Your task to perform on an android device: Add "apple airpods" to the cart on walmart.com, then select checkout. Image 0: 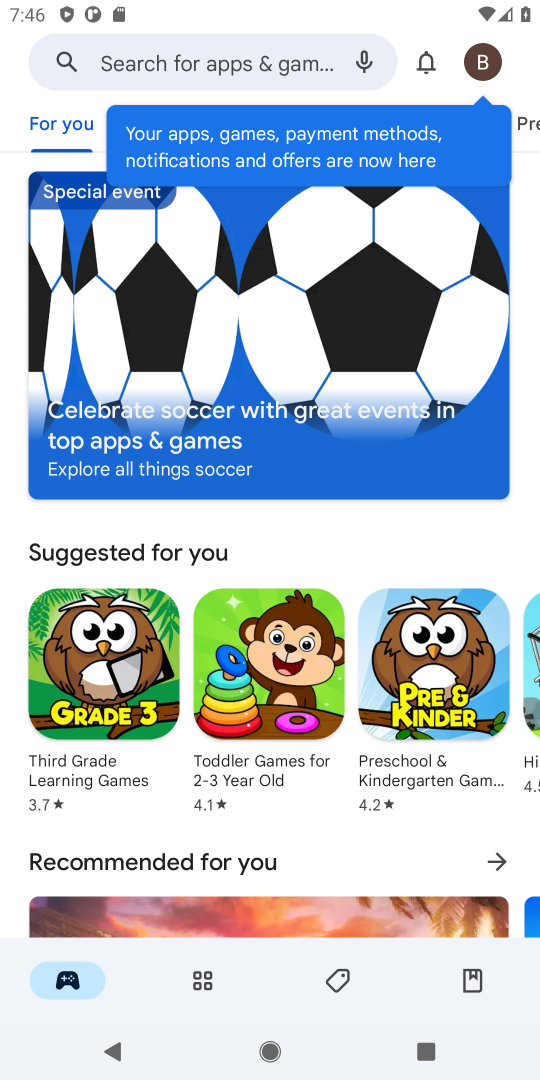
Step 0: press home button
Your task to perform on an android device: Add "apple airpods" to the cart on walmart.com, then select checkout. Image 1: 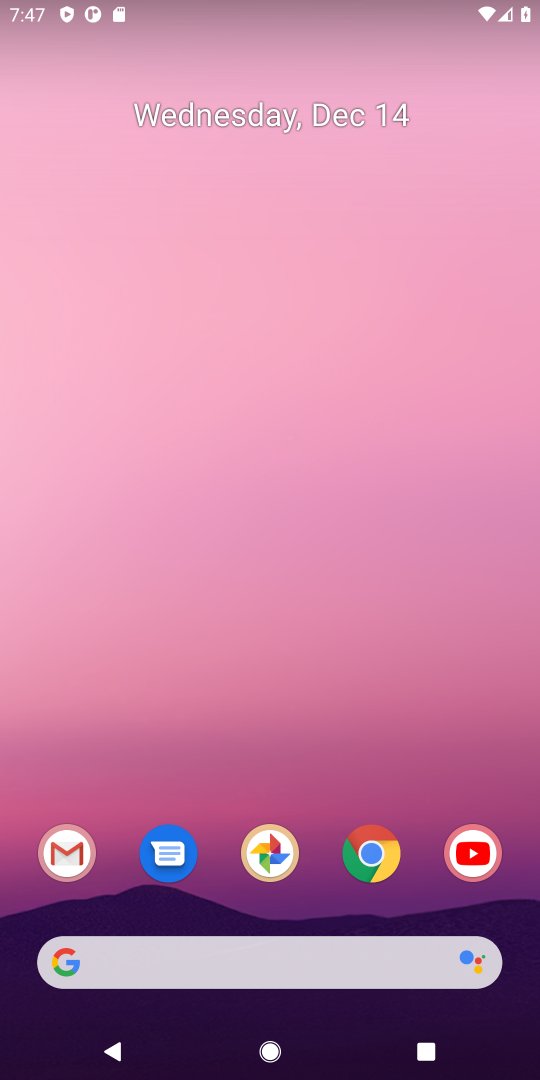
Step 1: click (371, 853)
Your task to perform on an android device: Add "apple airpods" to the cart on walmart.com, then select checkout. Image 2: 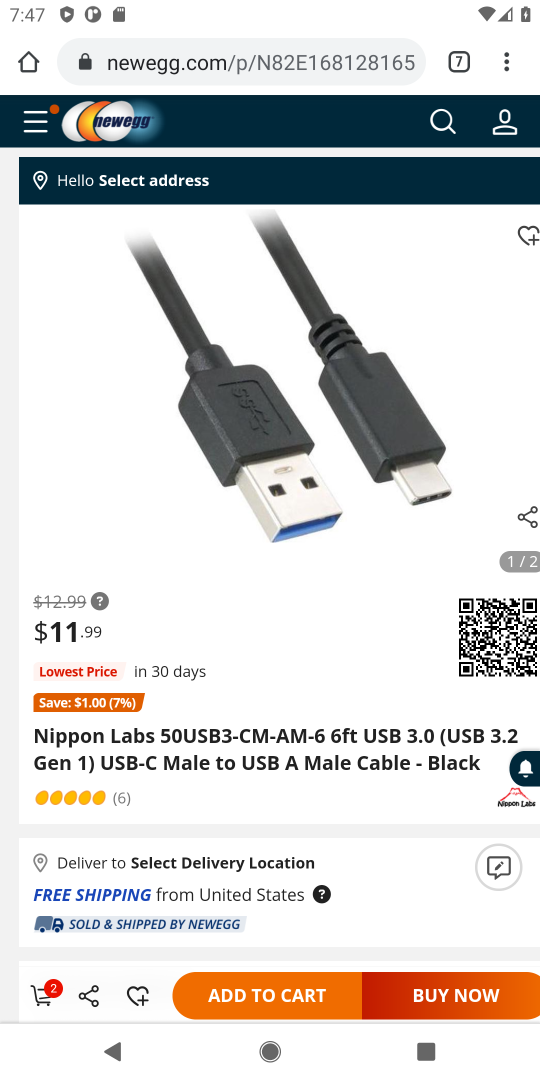
Step 2: click (459, 59)
Your task to perform on an android device: Add "apple airpods" to the cart on walmart.com, then select checkout. Image 3: 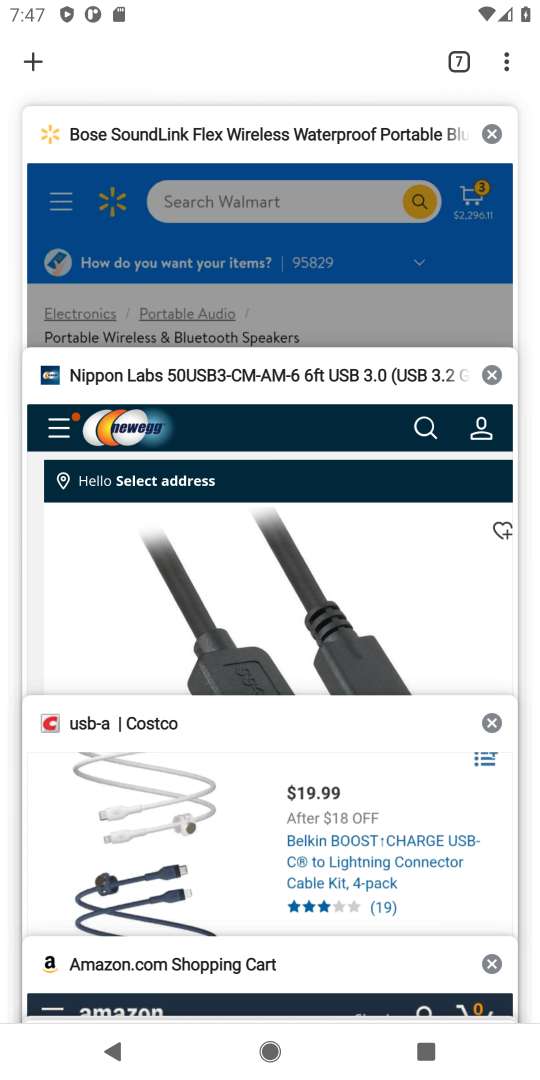
Step 3: click (273, 202)
Your task to perform on an android device: Add "apple airpods" to the cart on walmart.com, then select checkout. Image 4: 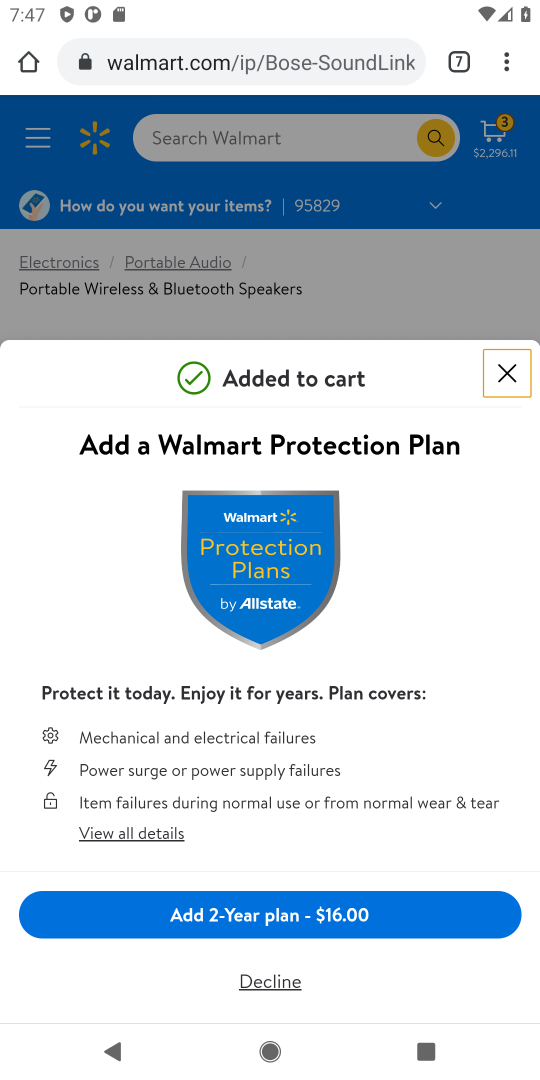
Step 4: click (504, 369)
Your task to perform on an android device: Add "apple airpods" to the cart on walmart.com, then select checkout. Image 5: 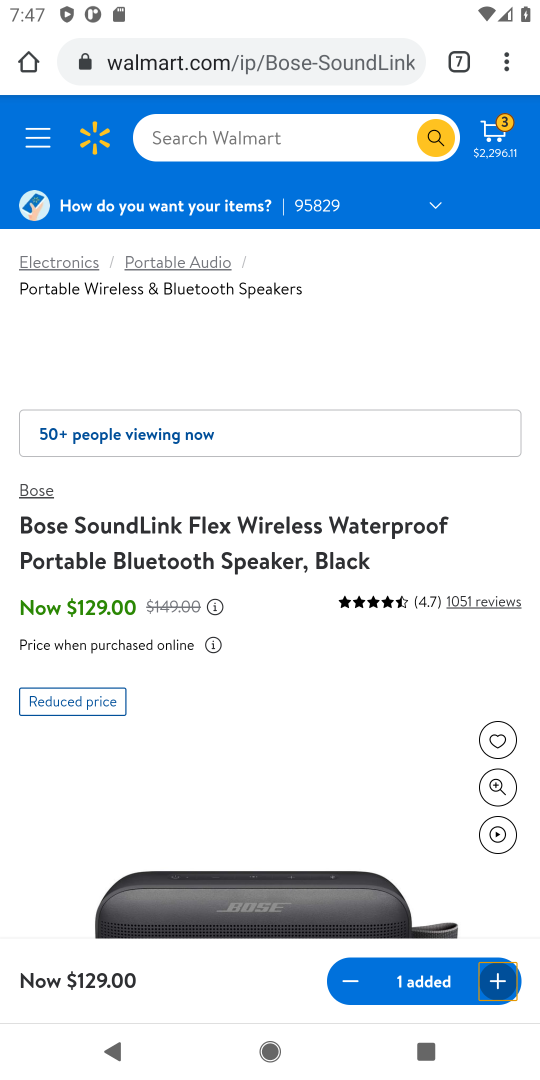
Step 5: click (200, 143)
Your task to perform on an android device: Add "apple airpods" to the cart on walmart.com, then select checkout. Image 6: 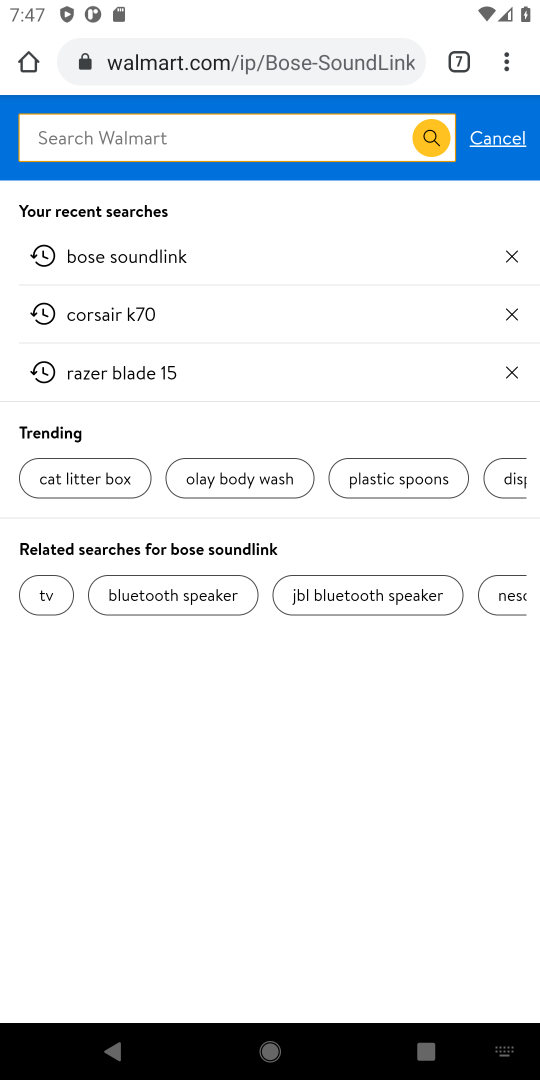
Step 6: type "apple airpods"
Your task to perform on an android device: Add "apple airpods" to the cart on walmart.com, then select checkout. Image 7: 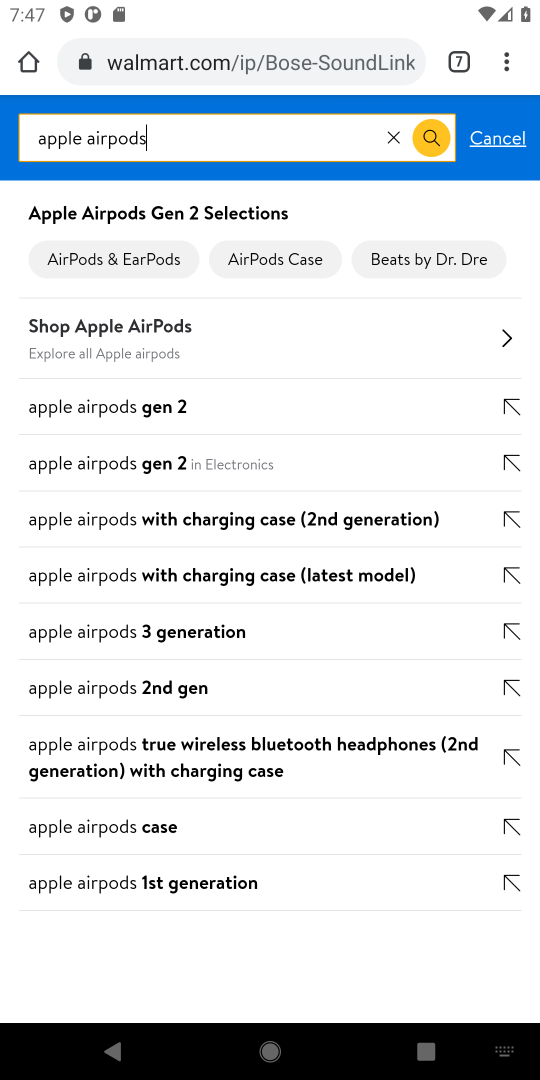
Step 7: click (94, 336)
Your task to perform on an android device: Add "apple airpods" to the cart on walmart.com, then select checkout. Image 8: 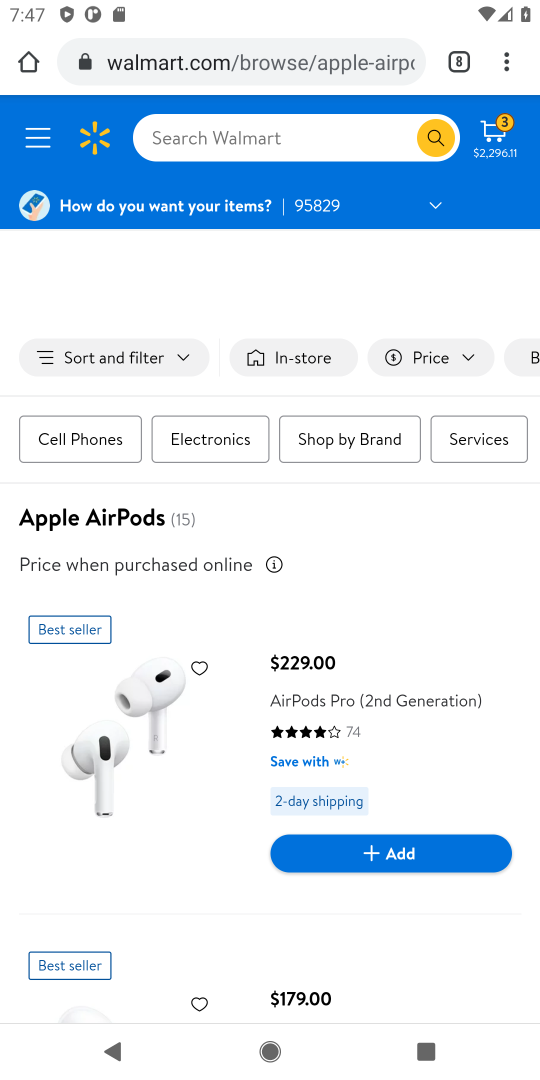
Step 8: click (369, 853)
Your task to perform on an android device: Add "apple airpods" to the cart on walmart.com, then select checkout. Image 9: 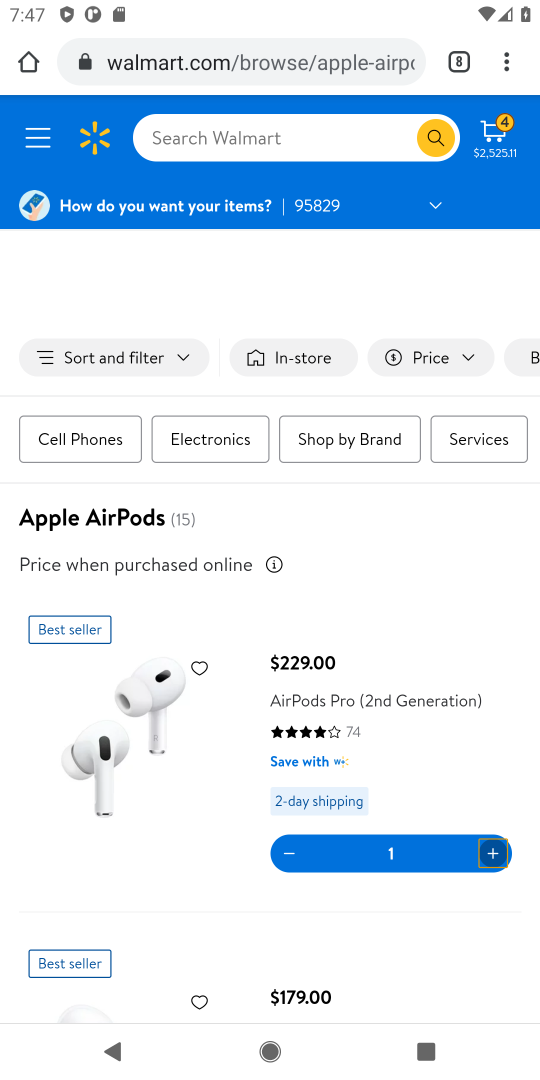
Step 9: task complete